Your task to perform on an android device: Do I have any events tomorrow? Image 0: 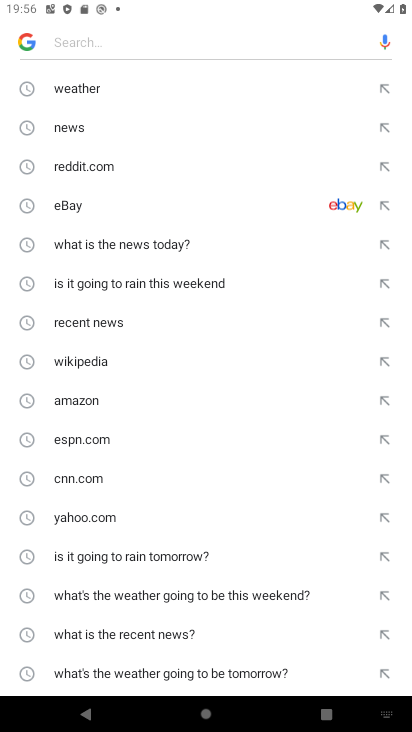
Step 0: press home button
Your task to perform on an android device: Do I have any events tomorrow? Image 1: 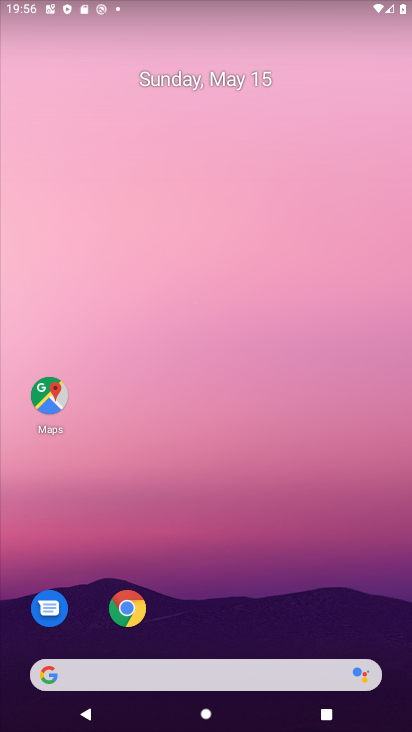
Step 1: drag from (269, 371) to (263, 15)
Your task to perform on an android device: Do I have any events tomorrow? Image 2: 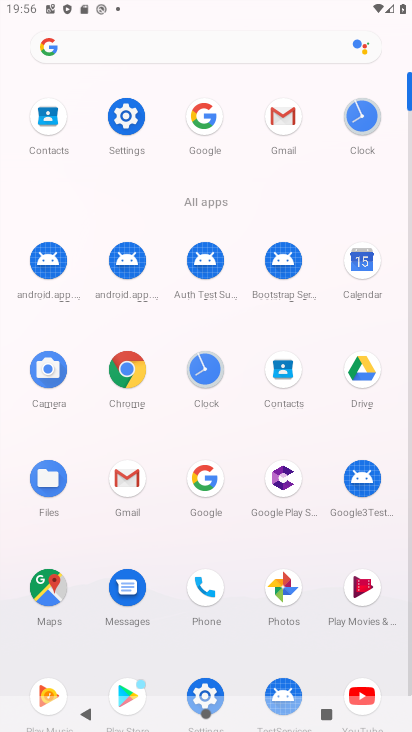
Step 2: click (358, 271)
Your task to perform on an android device: Do I have any events tomorrow? Image 3: 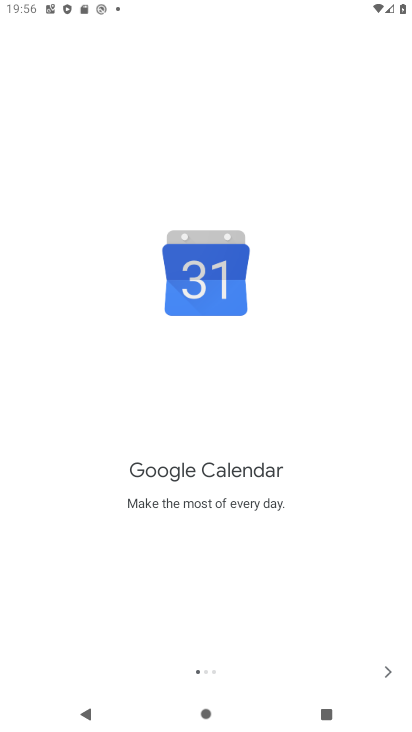
Step 3: click (373, 678)
Your task to perform on an android device: Do I have any events tomorrow? Image 4: 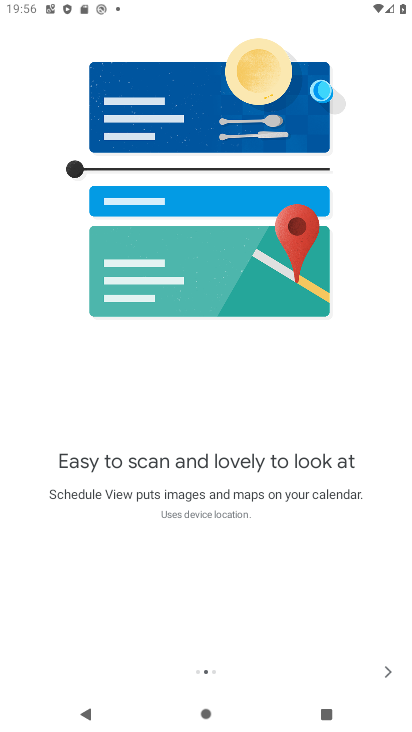
Step 4: click (374, 678)
Your task to perform on an android device: Do I have any events tomorrow? Image 5: 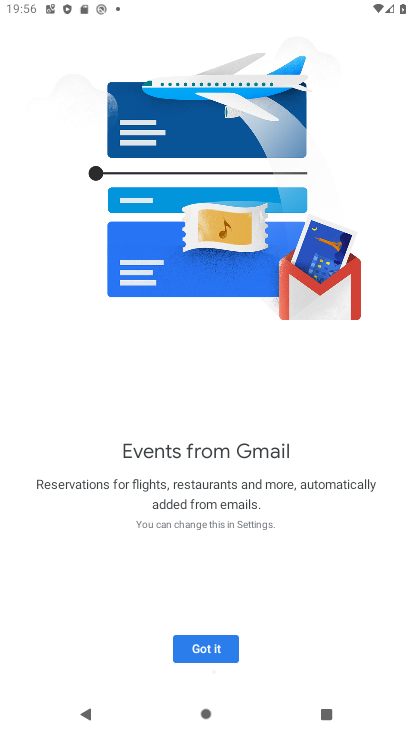
Step 5: click (374, 678)
Your task to perform on an android device: Do I have any events tomorrow? Image 6: 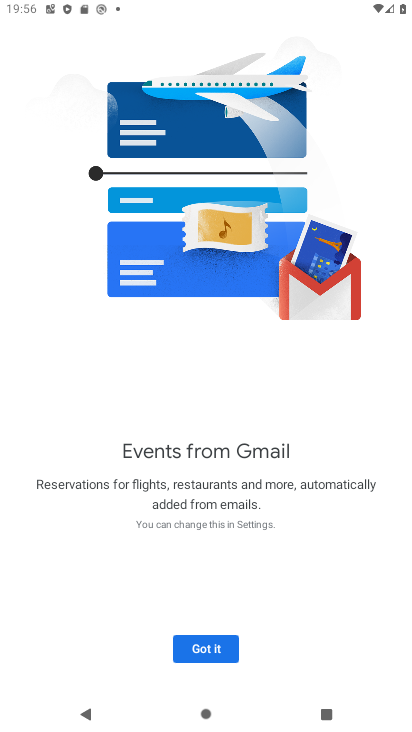
Step 6: click (226, 648)
Your task to perform on an android device: Do I have any events tomorrow? Image 7: 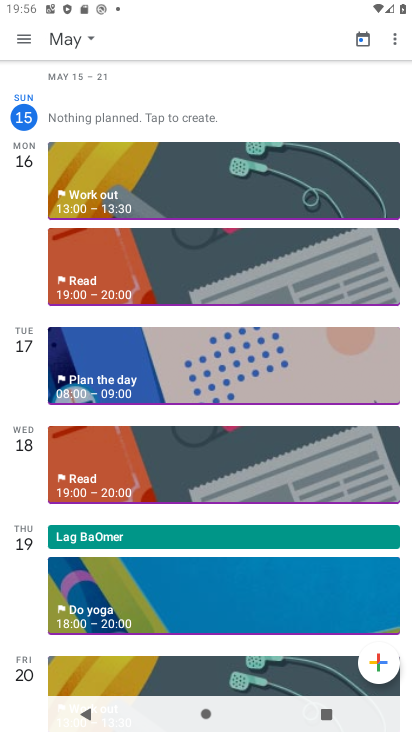
Step 7: click (82, 46)
Your task to perform on an android device: Do I have any events tomorrow? Image 8: 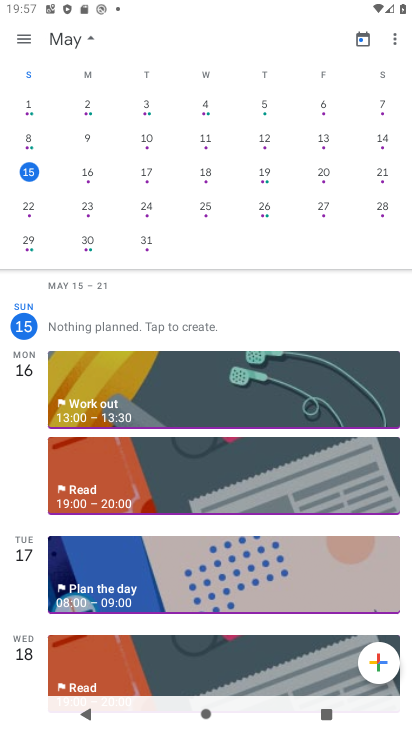
Step 8: click (91, 174)
Your task to perform on an android device: Do I have any events tomorrow? Image 9: 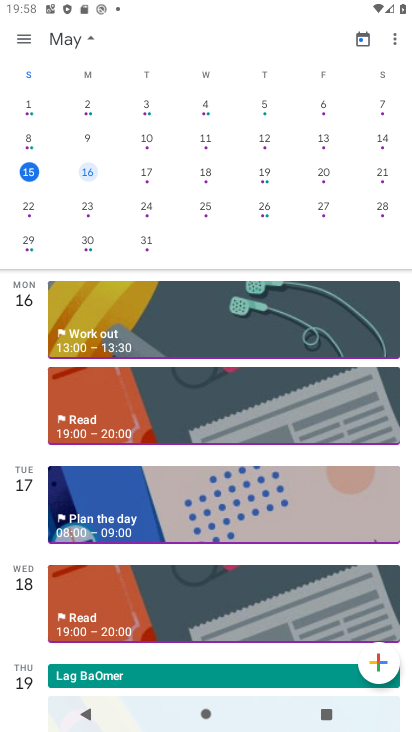
Step 9: task complete